Your task to perform on an android device: Open Wikipedia Image 0: 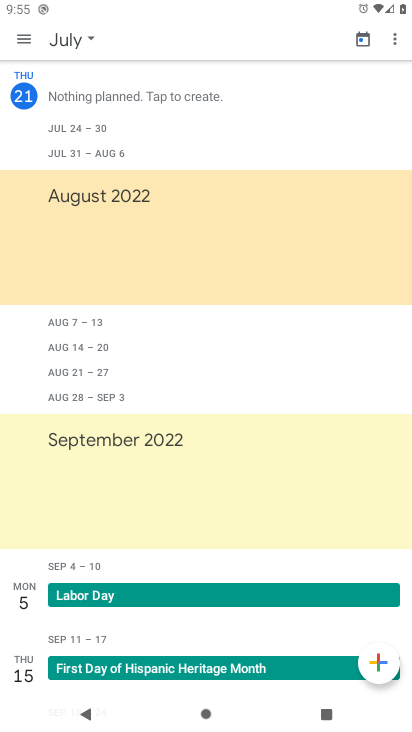
Step 0: press home button
Your task to perform on an android device: Open Wikipedia Image 1: 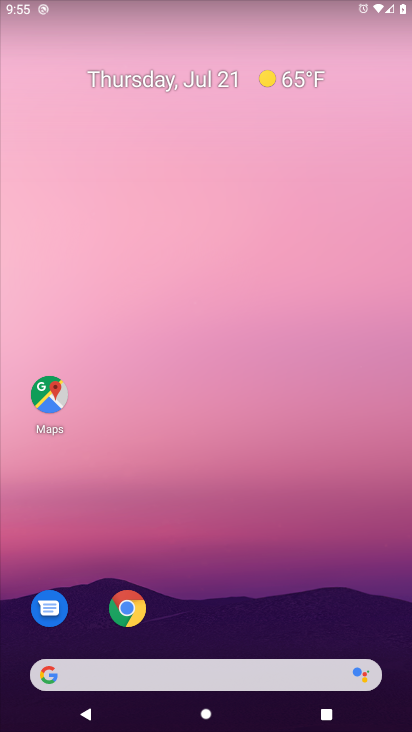
Step 1: click (193, 670)
Your task to perform on an android device: Open Wikipedia Image 2: 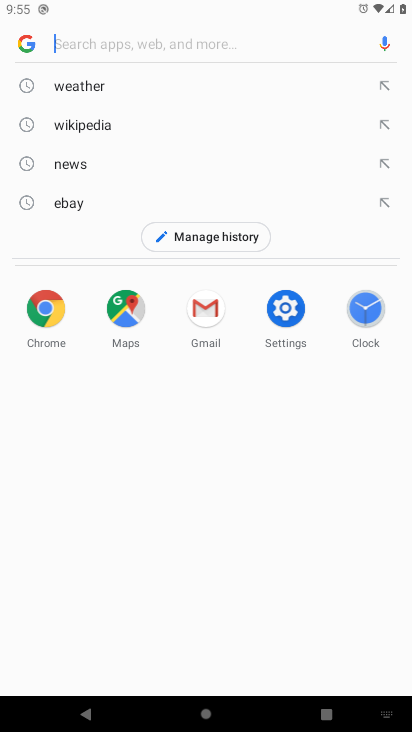
Step 2: type "Open Wikipedia"
Your task to perform on an android device: Open Wikipedia Image 3: 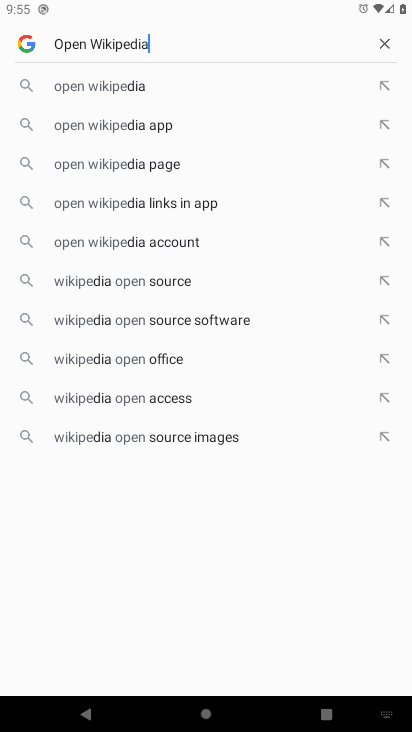
Step 3: press enter
Your task to perform on an android device: Open Wikipedia Image 4: 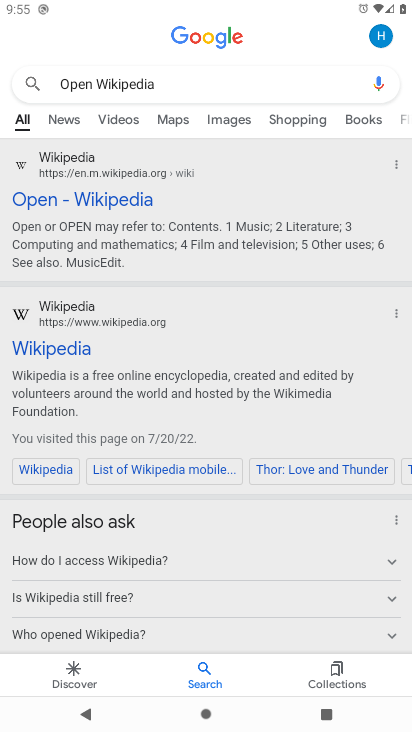
Step 4: click (29, 345)
Your task to perform on an android device: Open Wikipedia Image 5: 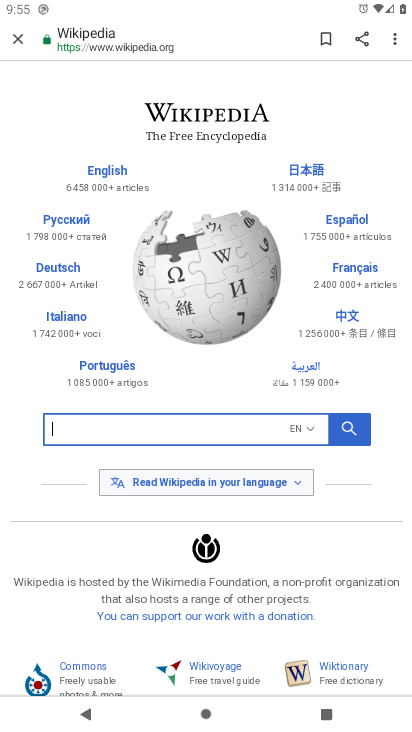
Step 5: task complete